Your task to perform on an android device: turn on notifications settings in the gmail app Image 0: 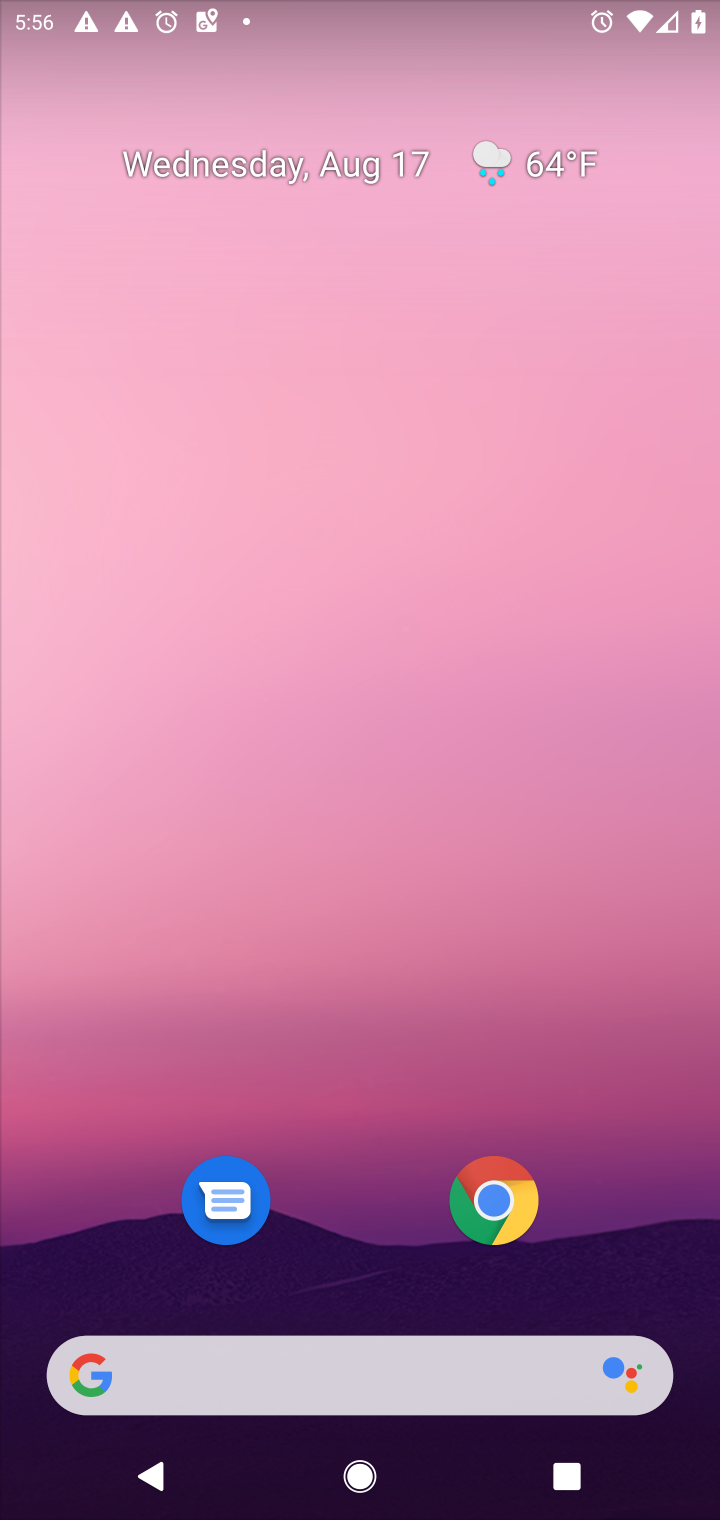
Step 0: drag from (274, 213) to (249, 46)
Your task to perform on an android device: turn on notifications settings in the gmail app Image 1: 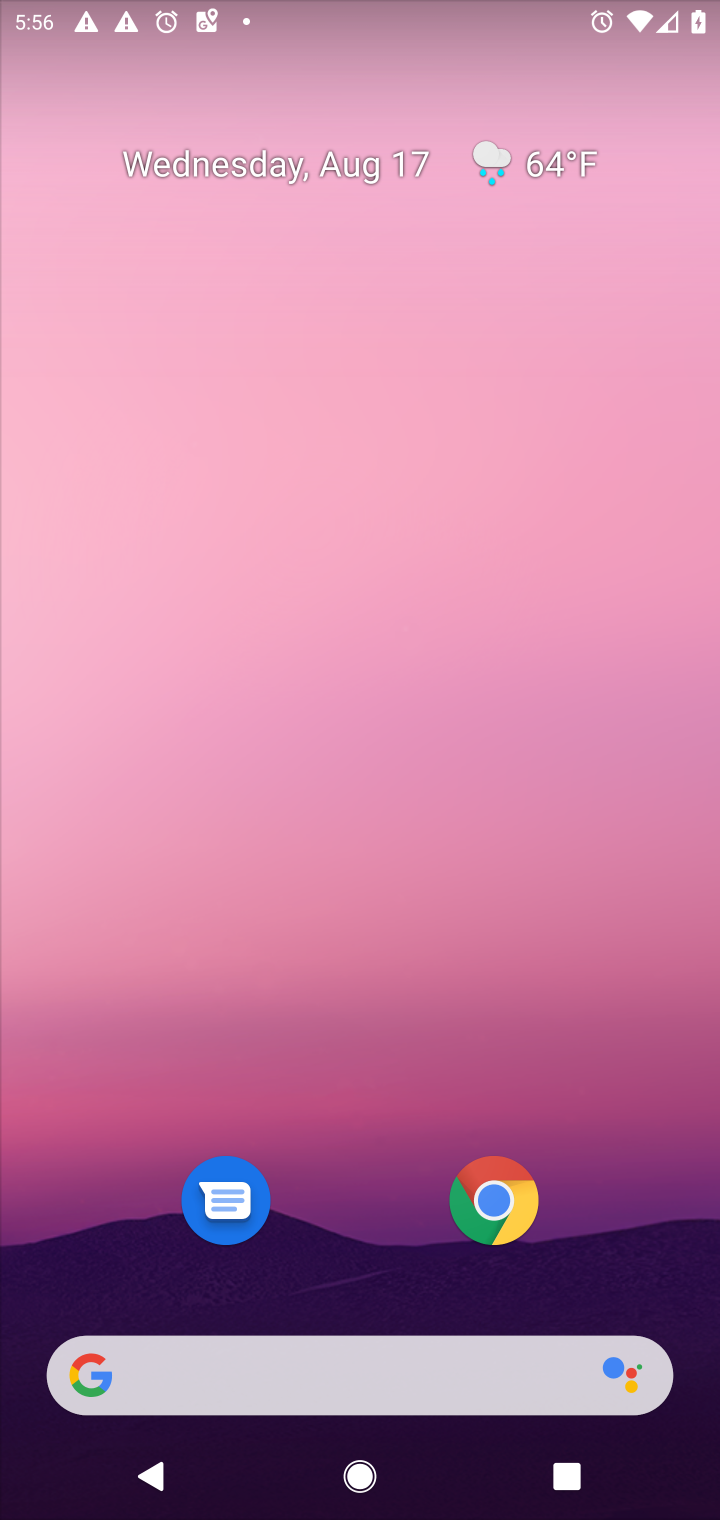
Step 1: drag from (370, 1231) to (351, 21)
Your task to perform on an android device: turn on notifications settings in the gmail app Image 2: 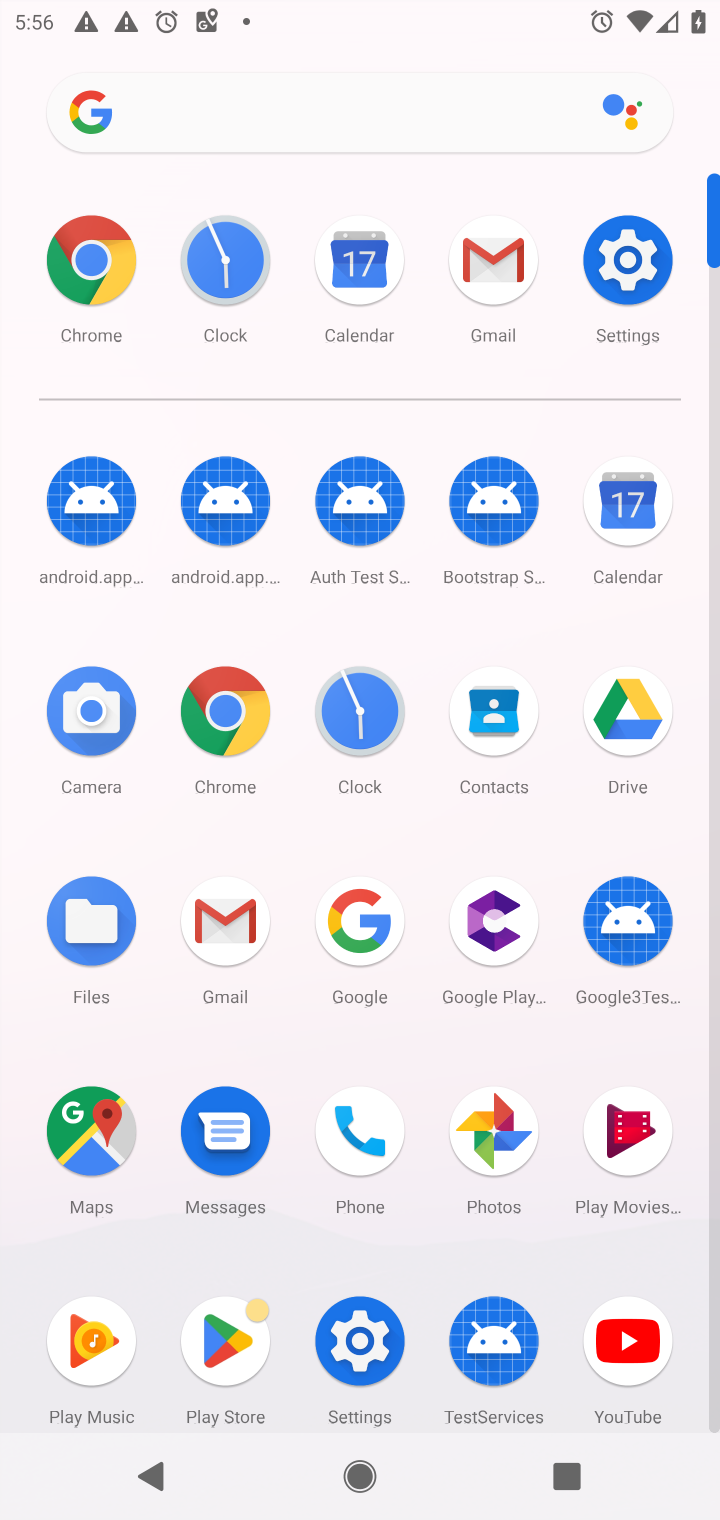
Step 2: click (225, 925)
Your task to perform on an android device: turn on notifications settings in the gmail app Image 3: 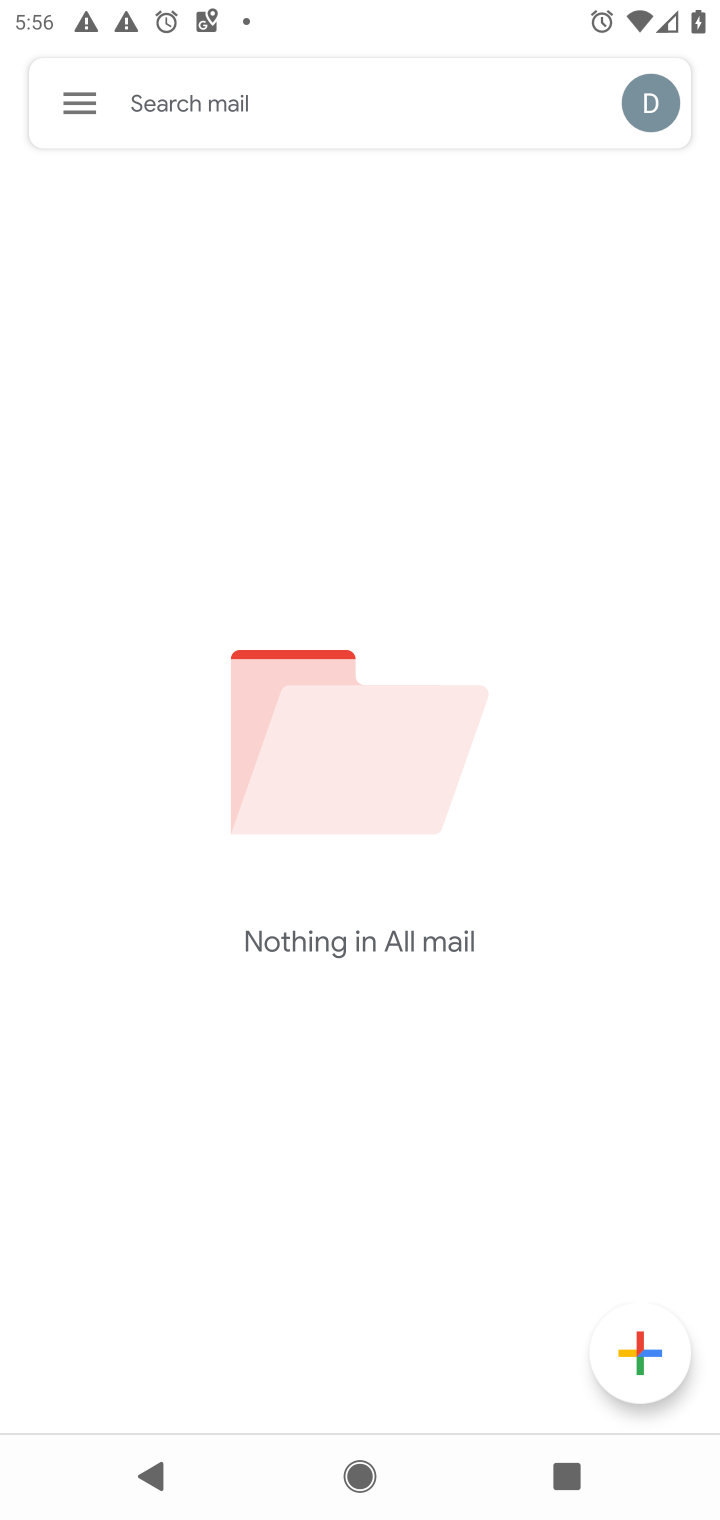
Step 3: click (78, 105)
Your task to perform on an android device: turn on notifications settings in the gmail app Image 4: 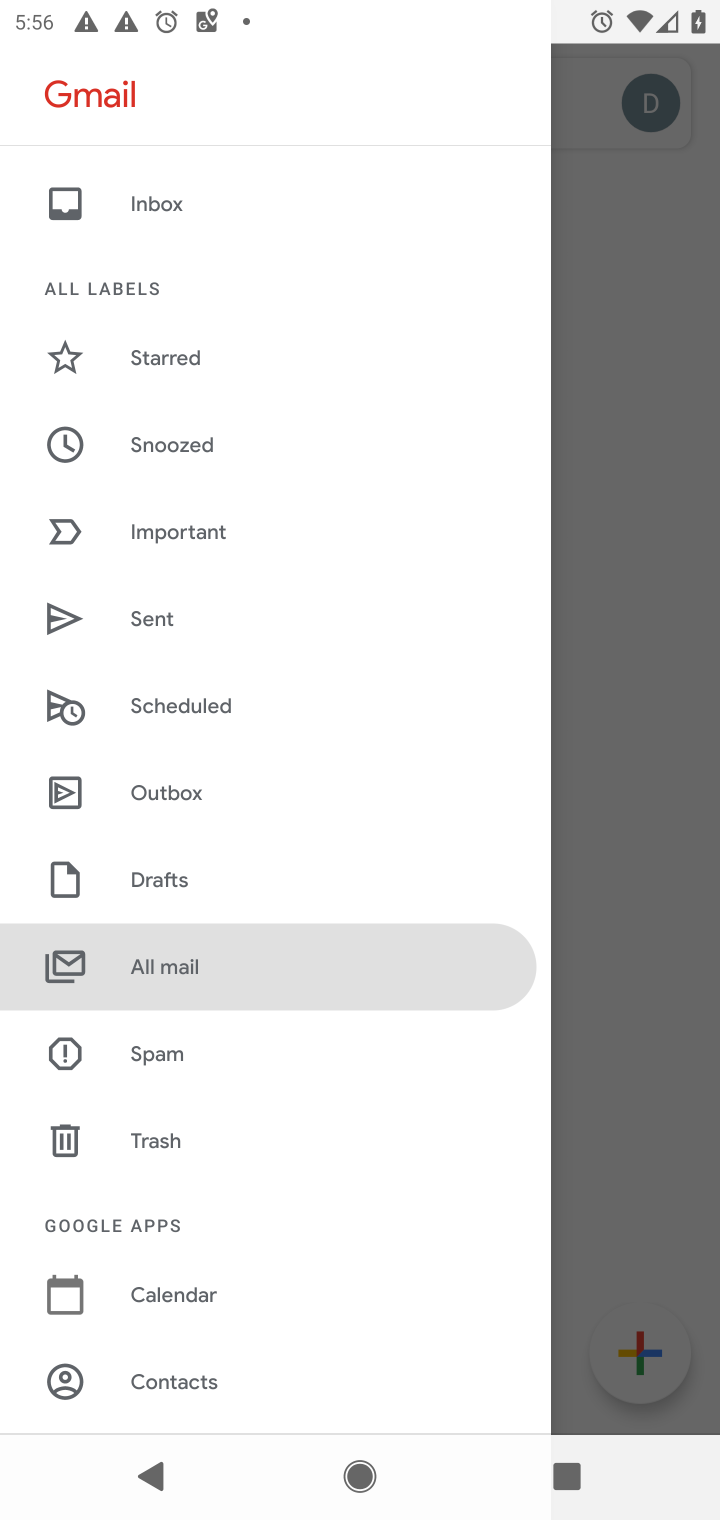
Step 4: drag from (158, 1360) to (142, 582)
Your task to perform on an android device: turn on notifications settings in the gmail app Image 5: 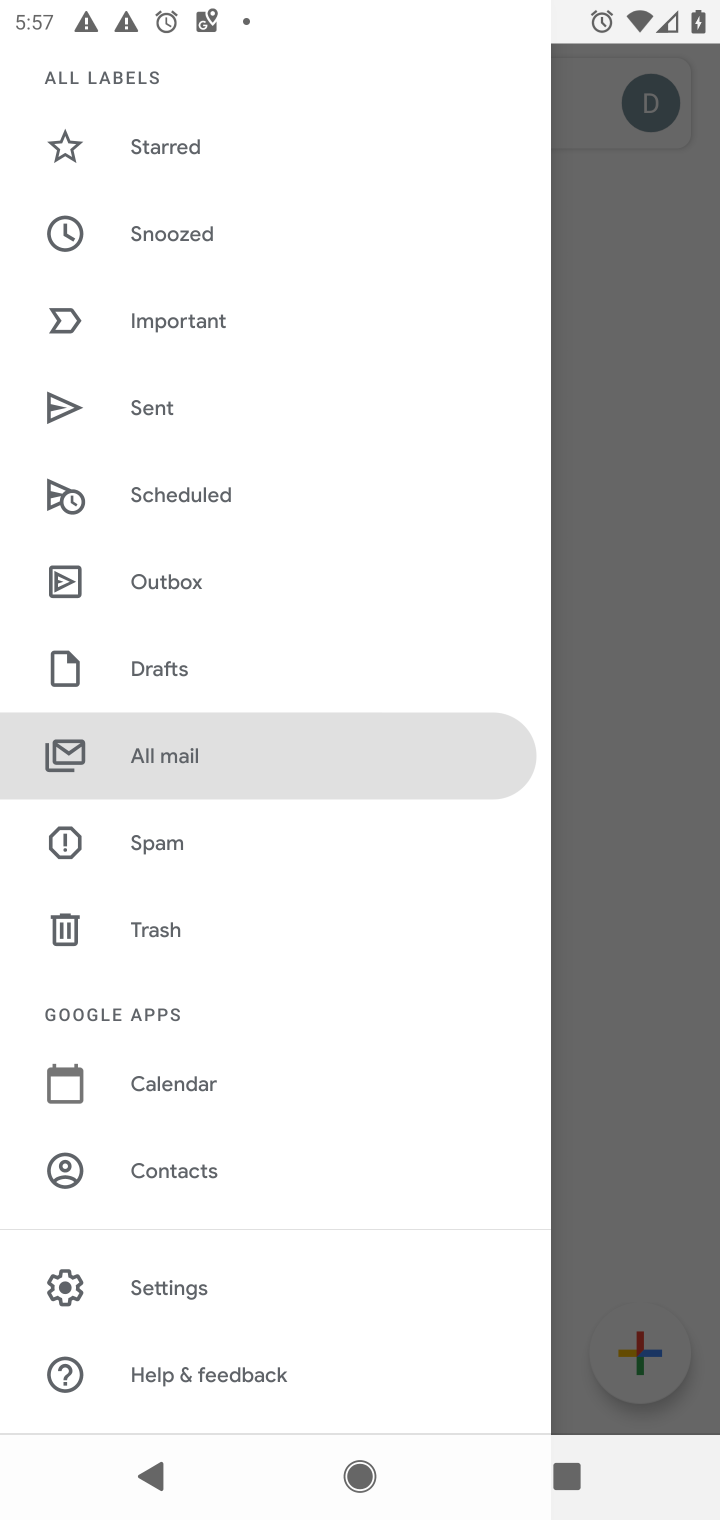
Step 5: click (175, 1278)
Your task to perform on an android device: turn on notifications settings in the gmail app Image 6: 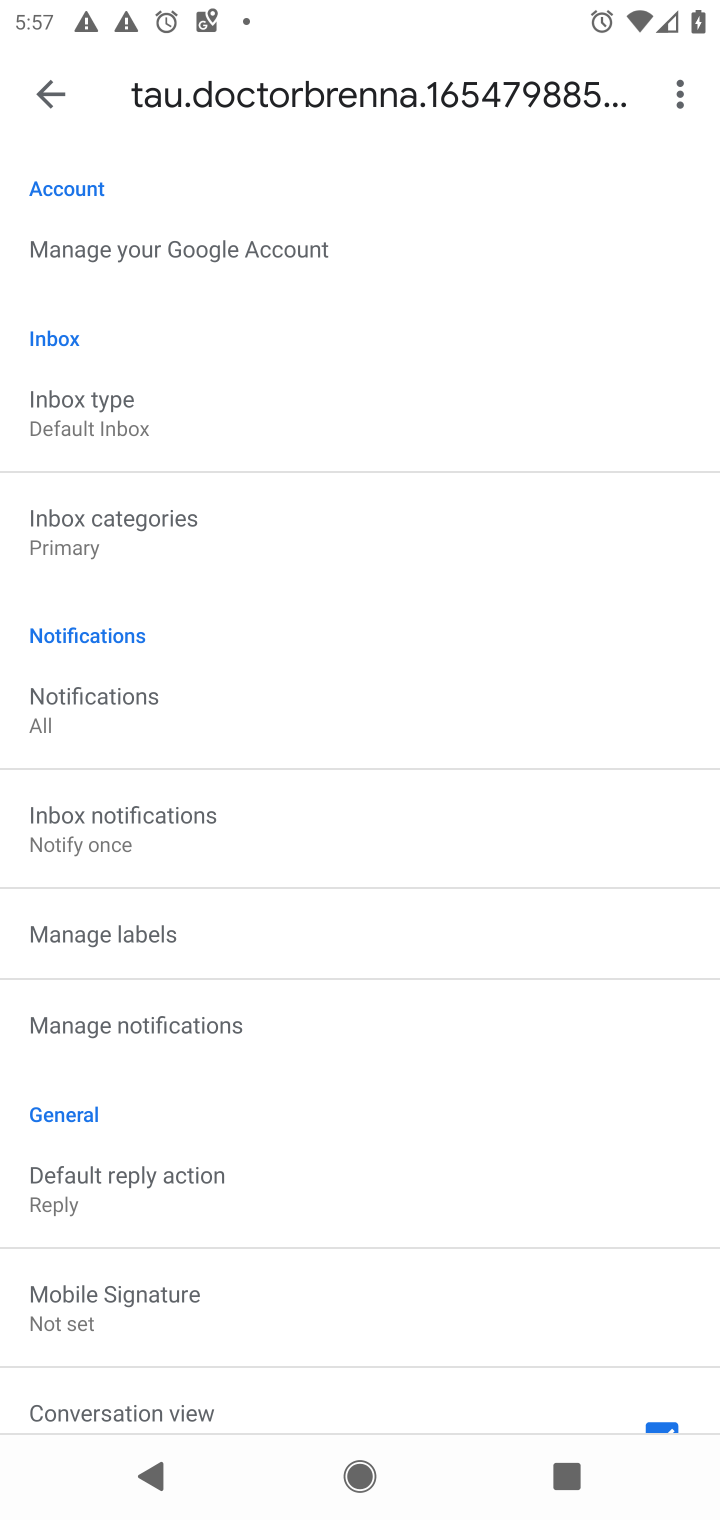
Step 6: task complete